Your task to perform on an android device: turn notification dots off Image 0: 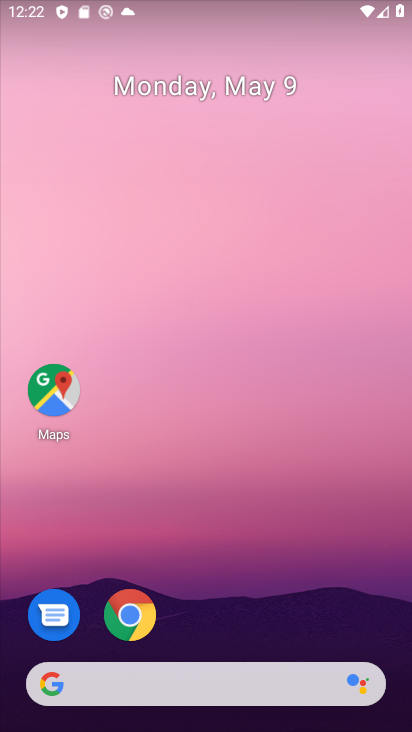
Step 0: drag from (228, 583) to (209, 135)
Your task to perform on an android device: turn notification dots off Image 1: 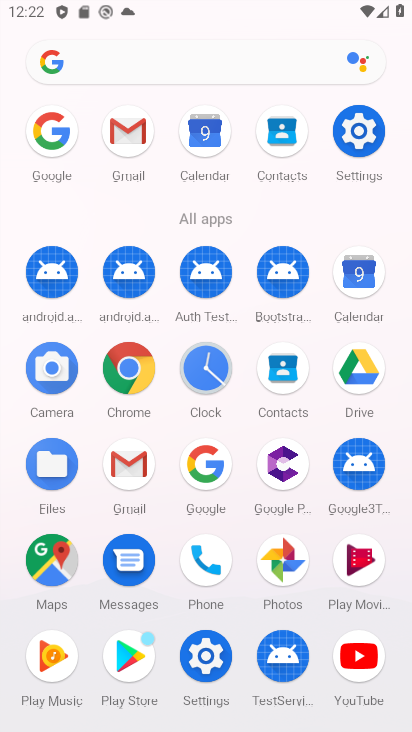
Step 1: click (360, 132)
Your task to perform on an android device: turn notification dots off Image 2: 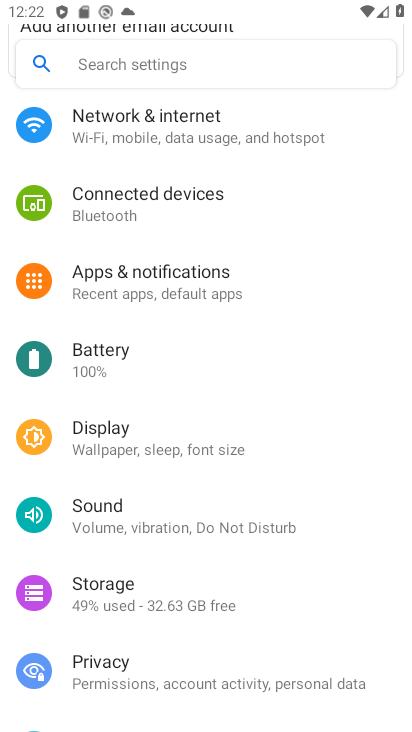
Step 2: click (123, 280)
Your task to perform on an android device: turn notification dots off Image 3: 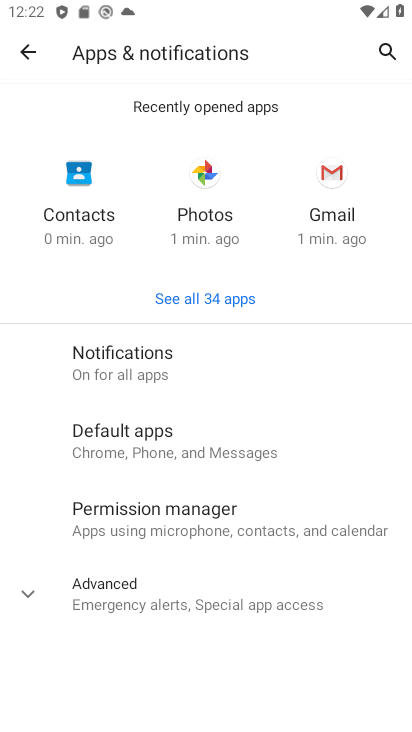
Step 3: click (145, 350)
Your task to perform on an android device: turn notification dots off Image 4: 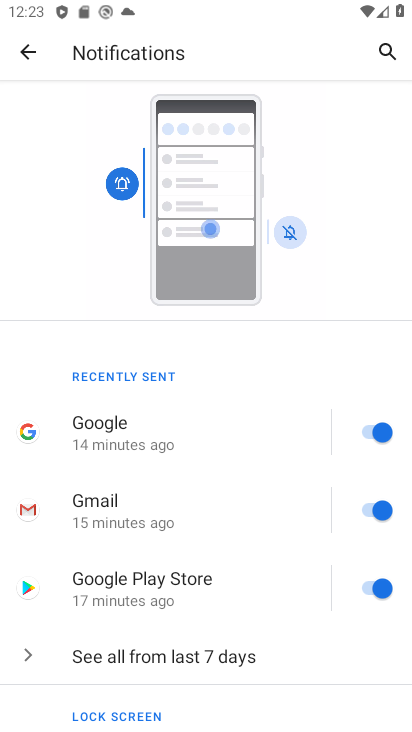
Step 4: drag from (156, 517) to (196, 392)
Your task to perform on an android device: turn notification dots off Image 5: 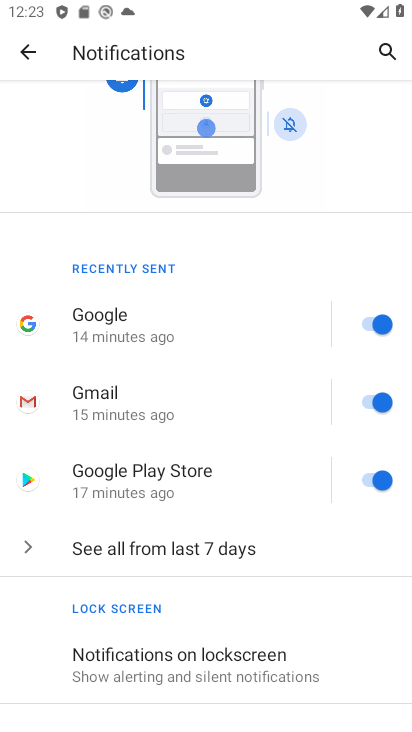
Step 5: drag from (189, 521) to (223, 401)
Your task to perform on an android device: turn notification dots off Image 6: 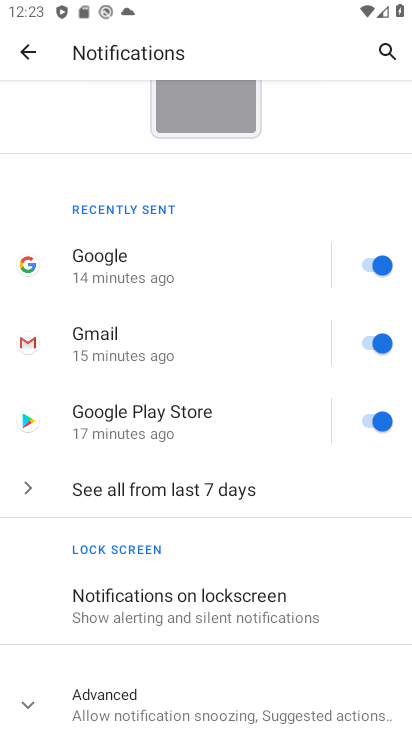
Step 6: click (199, 464)
Your task to perform on an android device: turn notification dots off Image 7: 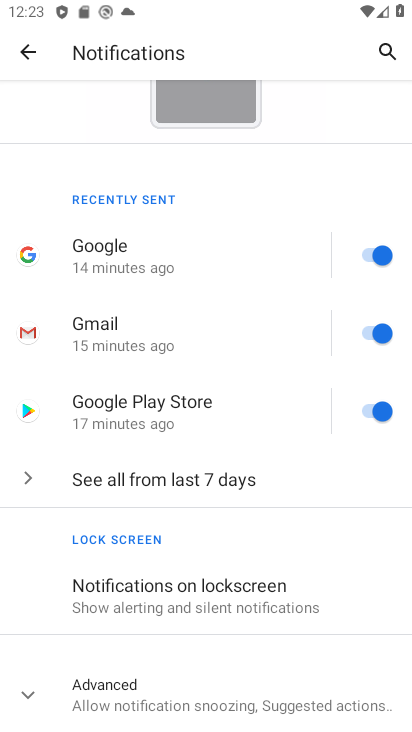
Step 7: click (128, 696)
Your task to perform on an android device: turn notification dots off Image 8: 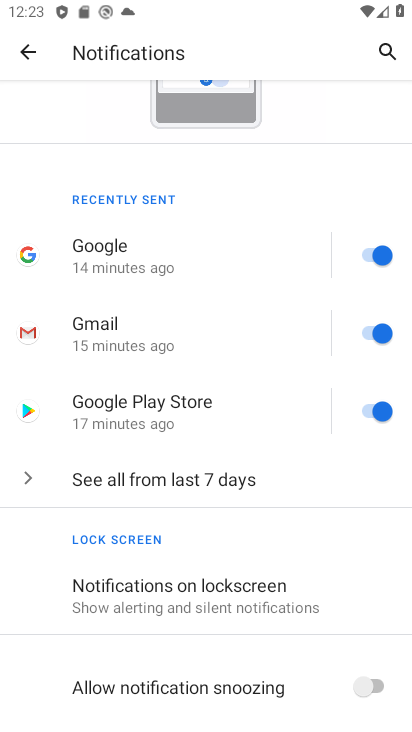
Step 8: drag from (165, 657) to (222, 484)
Your task to perform on an android device: turn notification dots off Image 9: 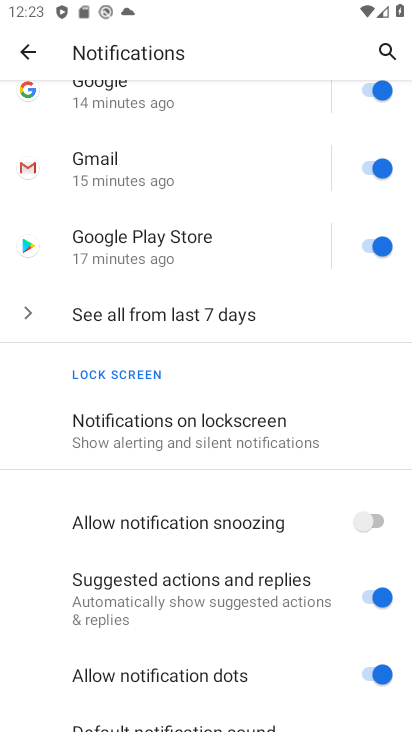
Step 9: drag from (265, 592) to (291, 475)
Your task to perform on an android device: turn notification dots off Image 10: 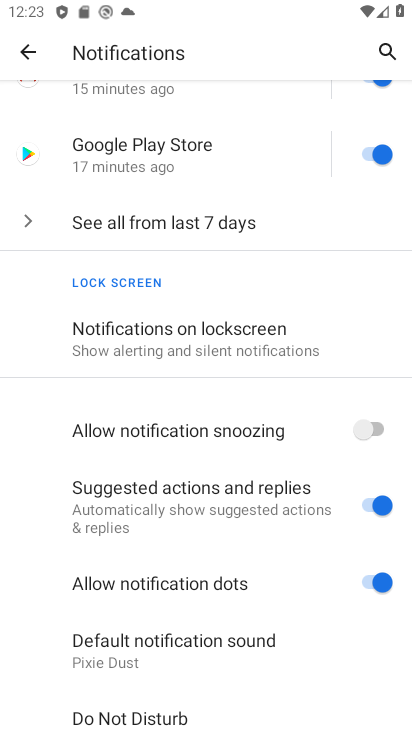
Step 10: click (384, 577)
Your task to perform on an android device: turn notification dots off Image 11: 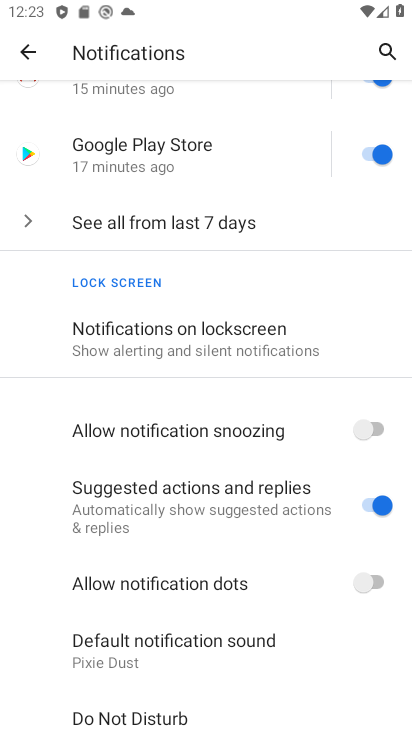
Step 11: task complete